Your task to perform on an android device: check google app version Image 0: 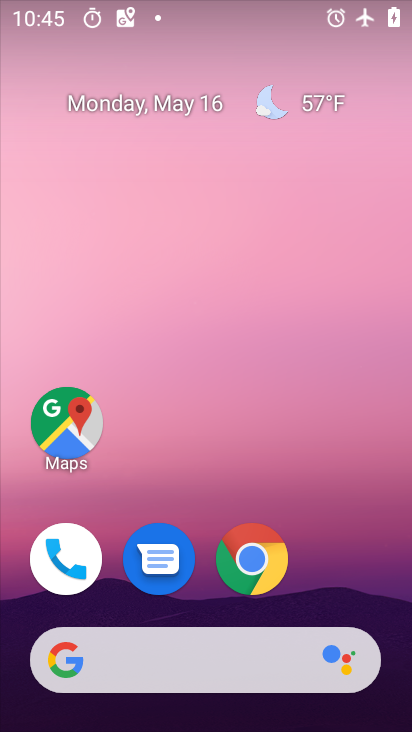
Step 0: drag from (332, 595) to (225, 116)
Your task to perform on an android device: check google app version Image 1: 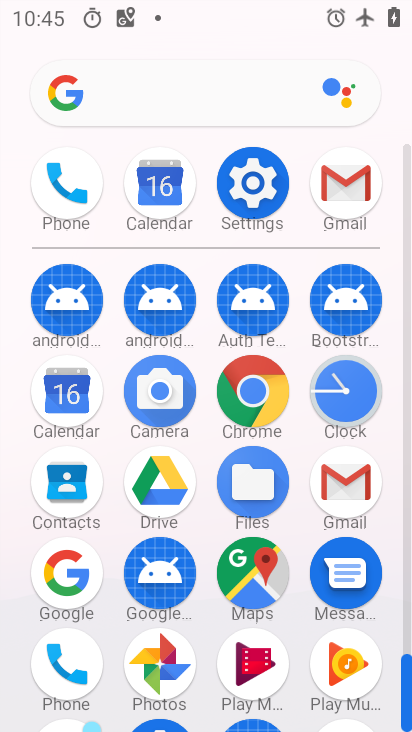
Step 1: click (75, 578)
Your task to perform on an android device: check google app version Image 2: 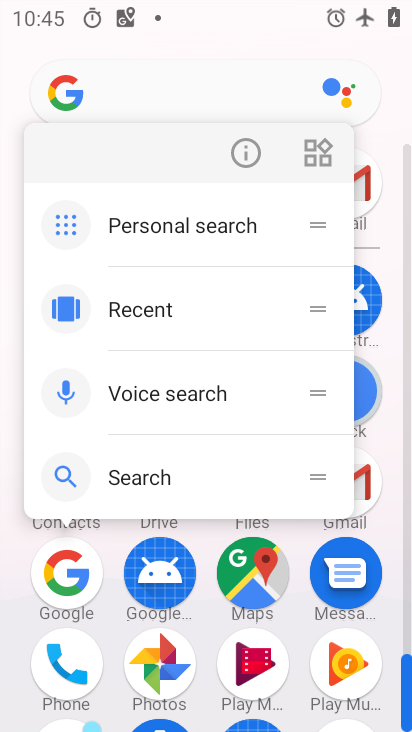
Step 2: click (247, 148)
Your task to perform on an android device: check google app version Image 3: 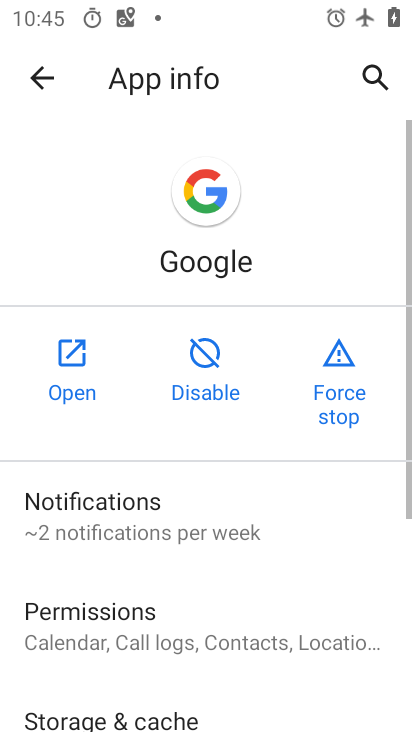
Step 3: drag from (227, 588) to (162, 126)
Your task to perform on an android device: check google app version Image 4: 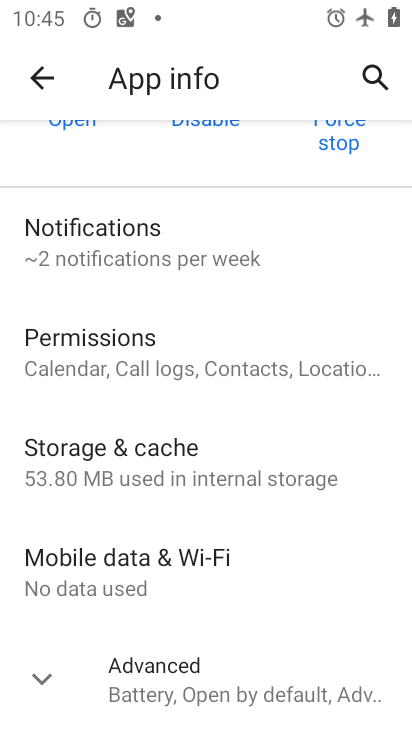
Step 4: drag from (289, 616) to (264, 84)
Your task to perform on an android device: check google app version Image 5: 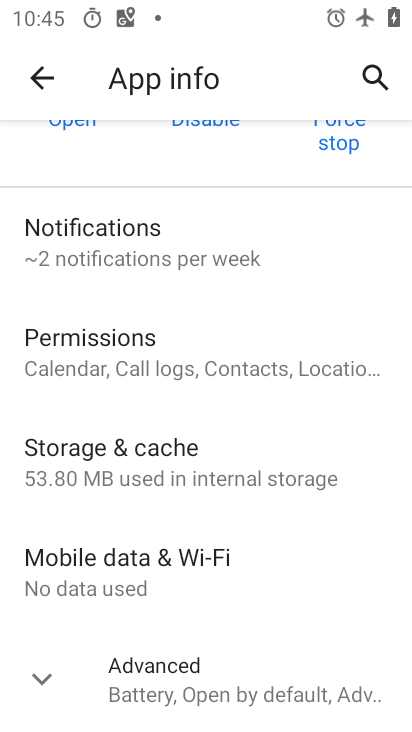
Step 5: click (263, 694)
Your task to perform on an android device: check google app version Image 6: 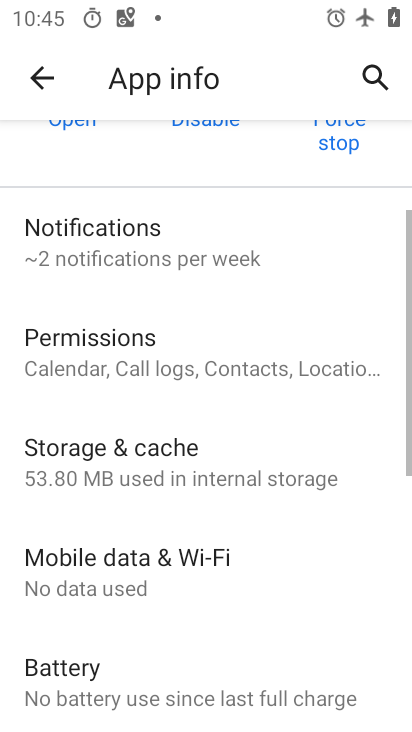
Step 6: task complete